Your task to perform on an android device: change notifications settings Image 0: 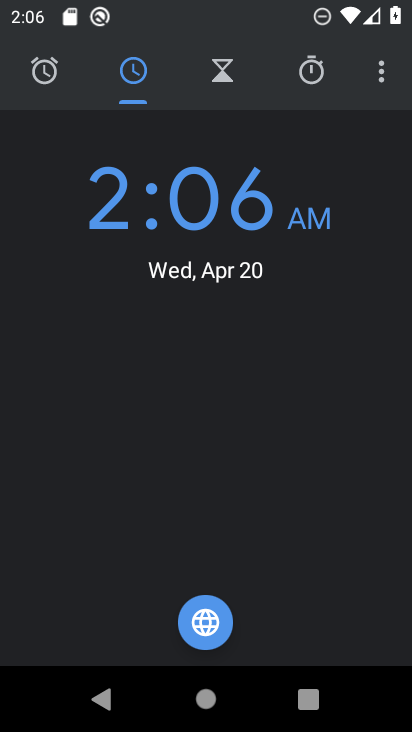
Step 0: press home button
Your task to perform on an android device: change notifications settings Image 1: 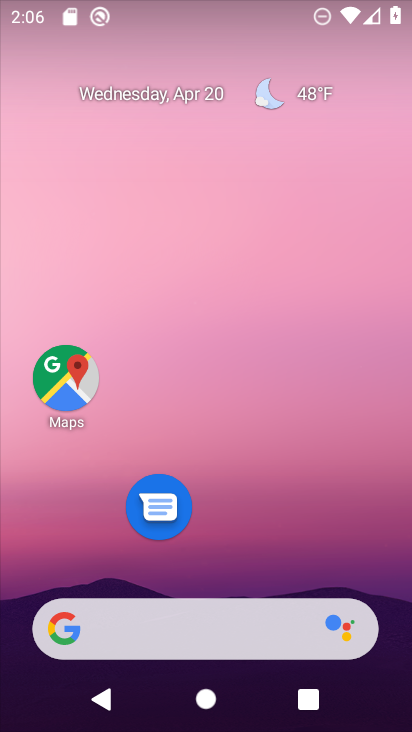
Step 1: drag from (206, 685) to (212, 122)
Your task to perform on an android device: change notifications settings Image 2: 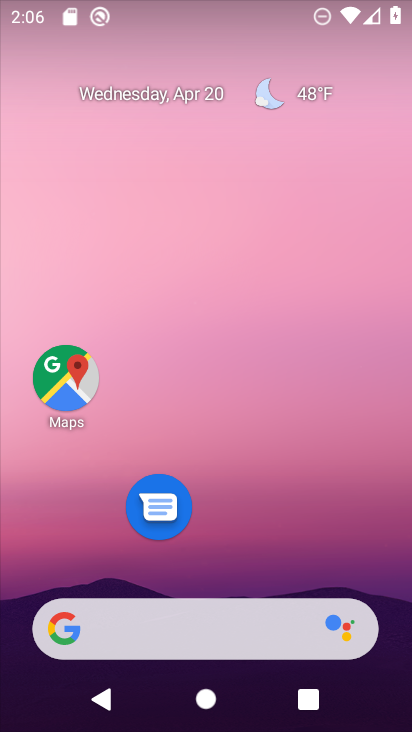
Step 2: drag from (209, 723) to (209, 70)
Your task to perform on an android device: change notifications settings Image 3: 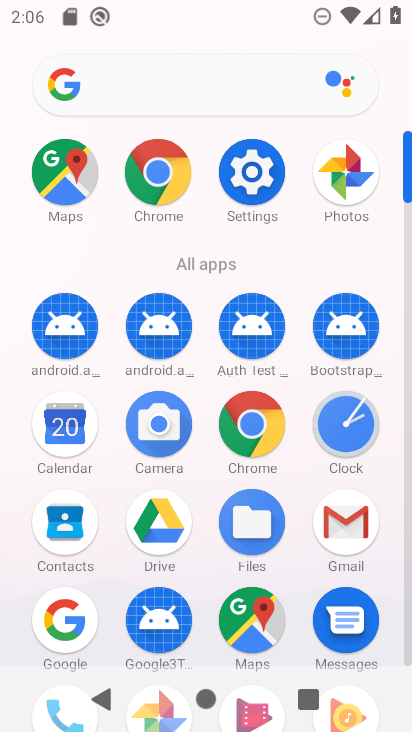
Step 3: click (258, 171)
Your task to perform on an android device: change notifications settings Image 4: 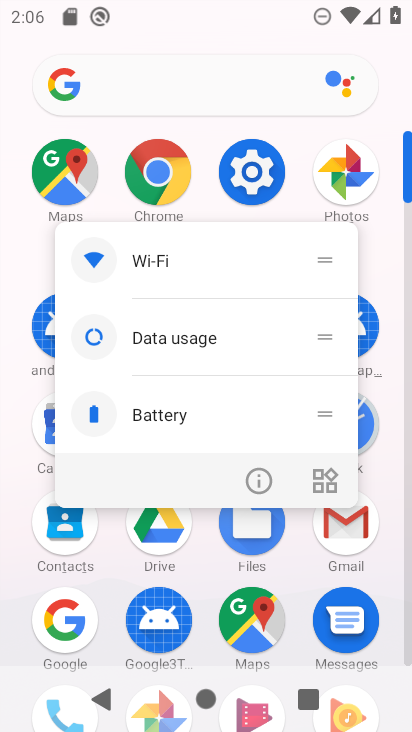
Step 4: click (258, 174)
Your task to perform on an android device: change notifications settings Image 5: 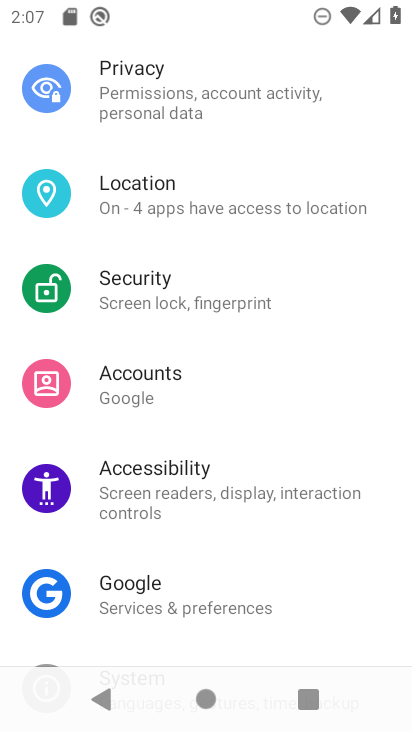
Step 5: drag from (197, 126) to (206, 511)
Your task to perform on an android device: change notifications settings Image 6: 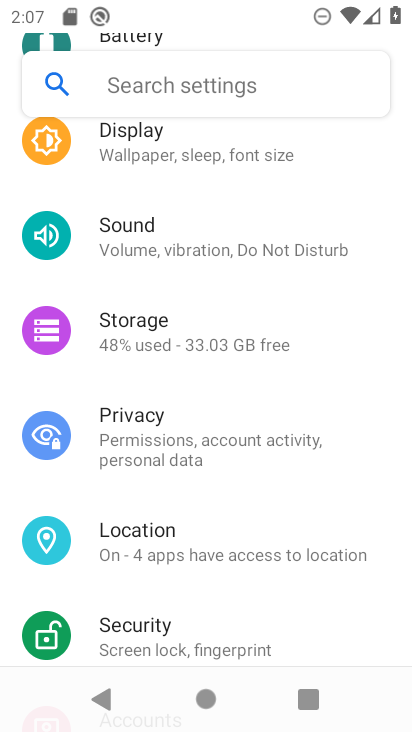
Step 6: drag from (208, 244) to (203, 526)
Your task to perform on an android device: change notifications settings Image 7: 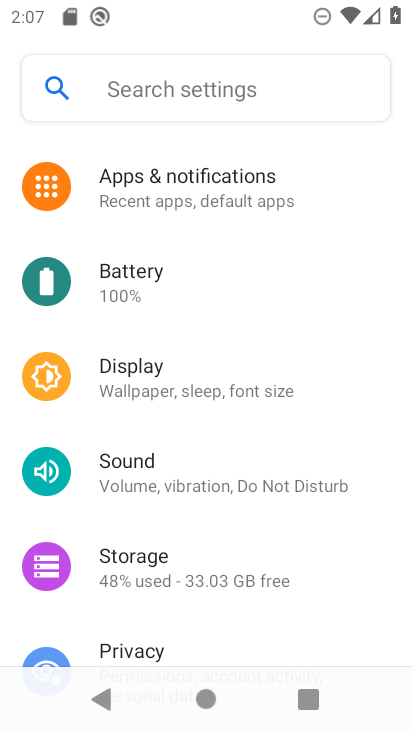
Step 7: click (161, 192)
Your task to perform on an android device: change notifications settings Image 8: 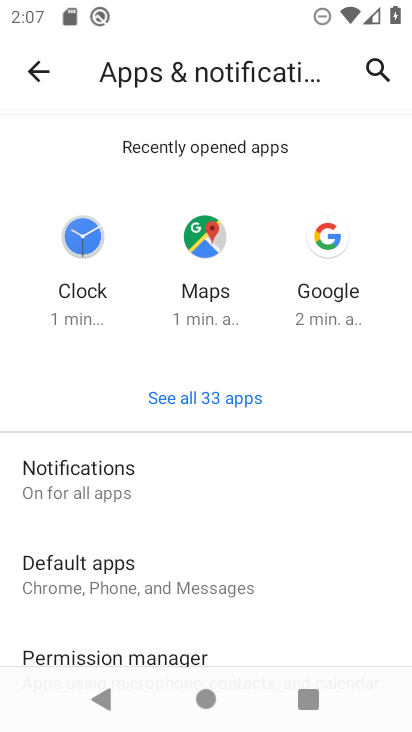
Step 8: click (96, 481)
Your task to perform on an android device: change notifications settings Image 9: 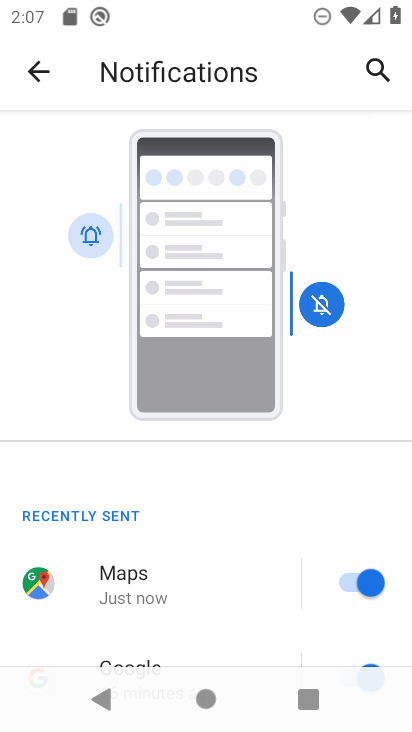
Step 9: drag from (198, 639) to (227, 234)
Your task to perform on an android device: change notifications settings Image 10: 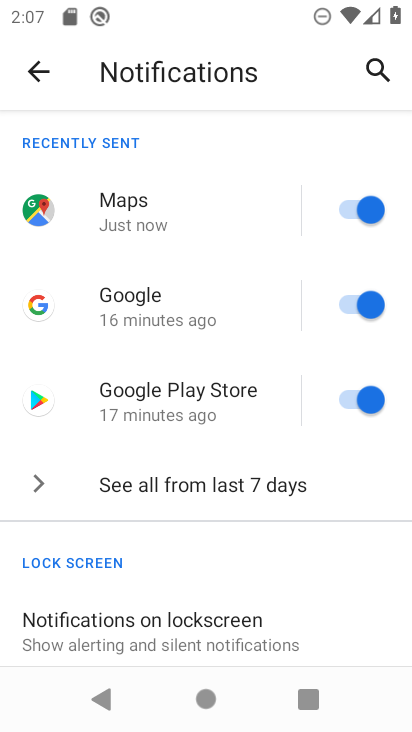
Step 10: drag from (210, 581) to (227, 275)
Your task to perform on an android device: change notifications settings Image 11: 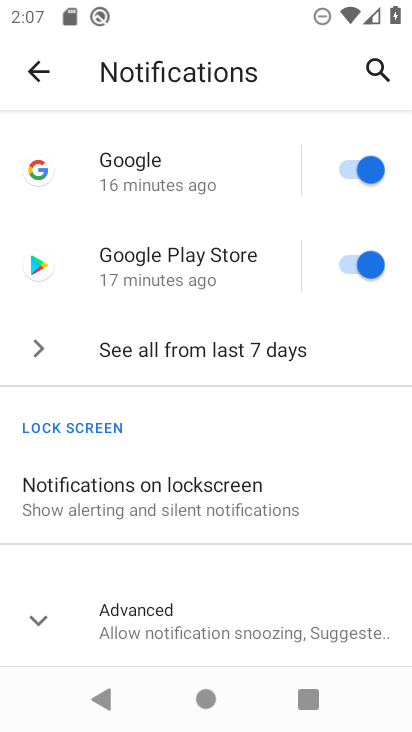
Step 11: click (166, 627)
Your task to perform on an android device: change notifications settings Image 12: 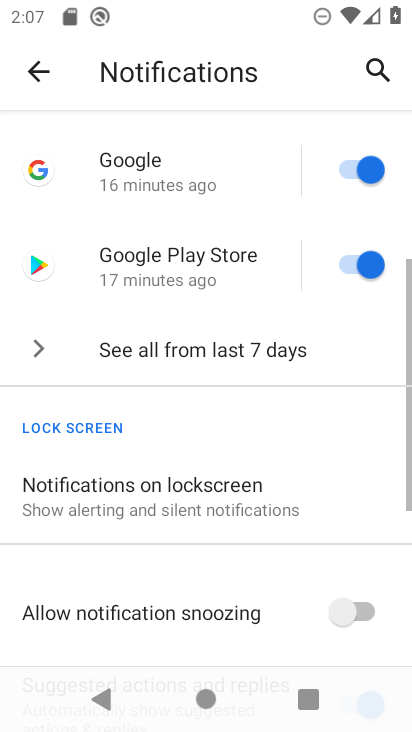
Step 12: drag from (218, 650) to (228, 338)
Your task to perform on an android device: change notifications settings Image 13: 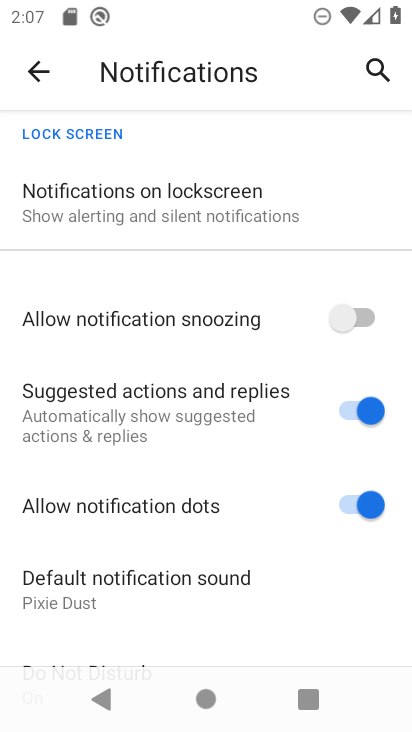
Step 13: click (365, 316)
Your task to perform on an android device: change notifications settings Image 14: 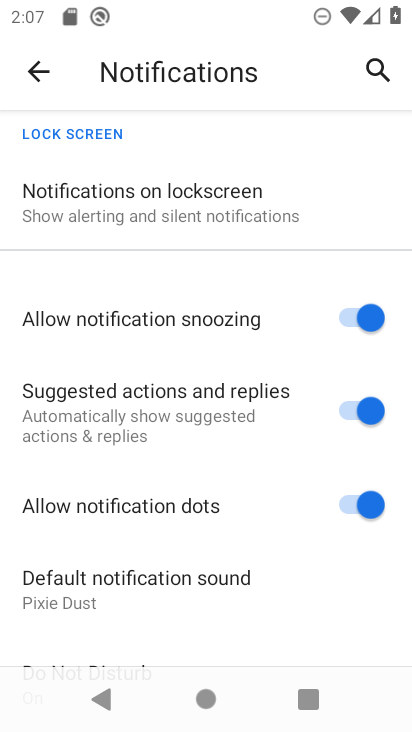
Step 14: task complete